Your task to perform on an android device: change timer sound Image 0: 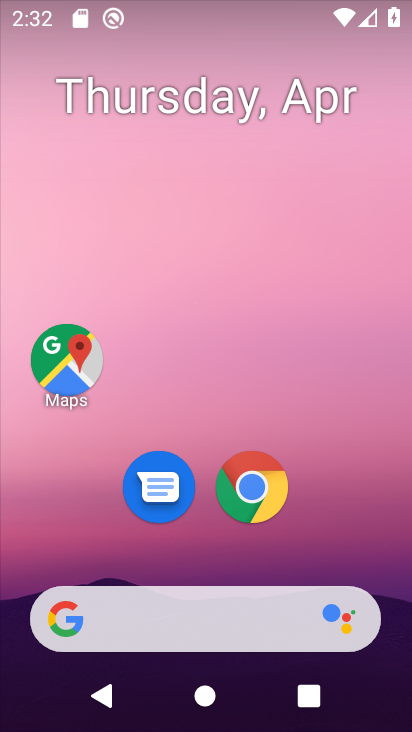
Step 0: drag from (275, 568) to (253, 317)
Your task to perform on an android device: change timer sound Image 1: 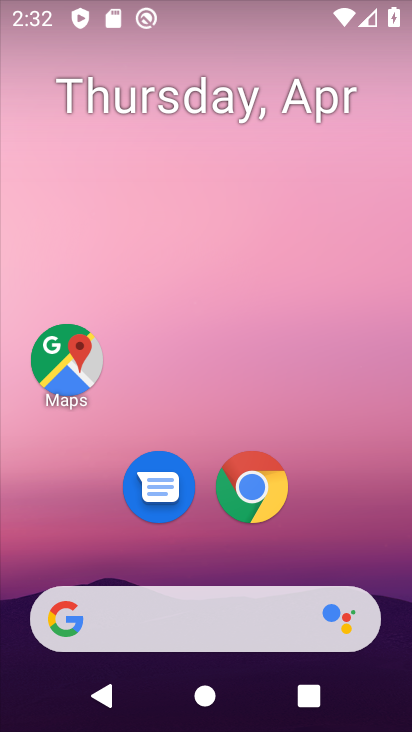
Step 1: drag from (246, 548) to (263, 259)
Your task to perform on an android device: change timer sound Image 2: 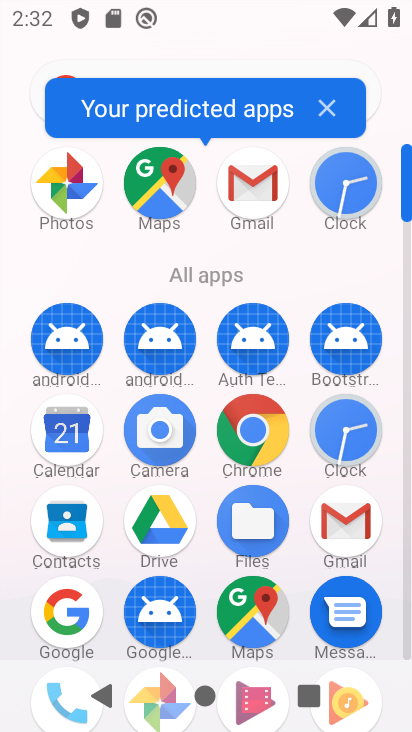
Step 2: drag from (285, 543) to (331, 155)
Your task to perform on an android device: change timer sound Image 3: 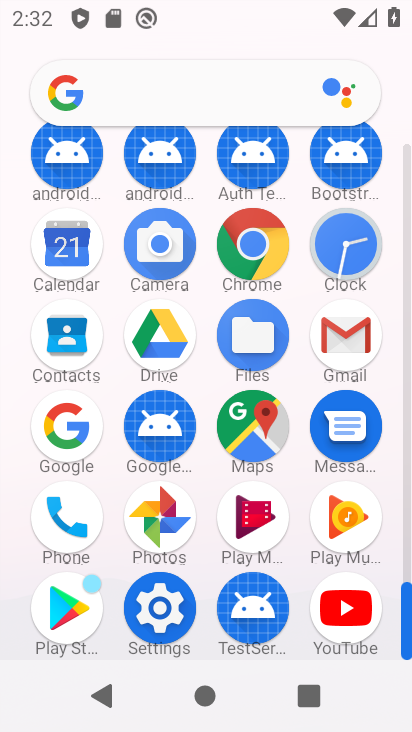
Step 3: click (175, 612)
Your task to perform on an android device: change timer sound Image 4: 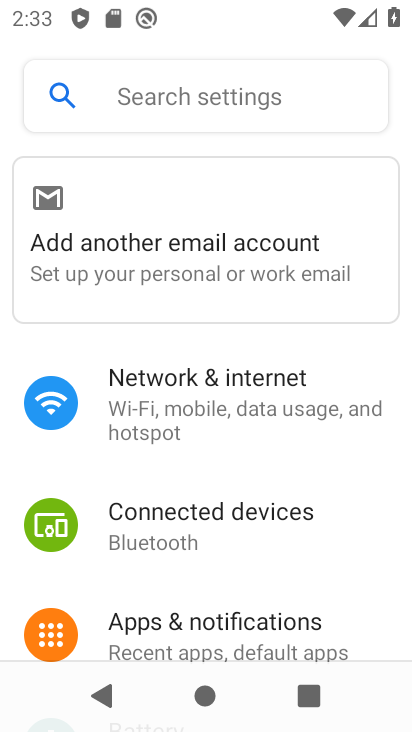
Step 4: drag from (177, 617) to (194, 502)
Your task to perform on an android device: change timer sound Image 5: 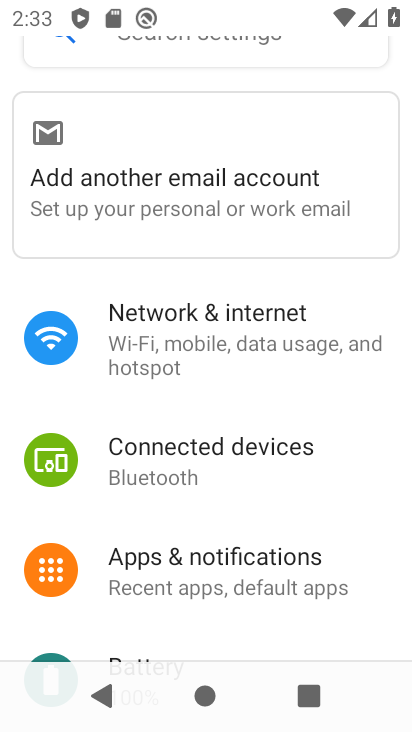
Step 5: drag from (204, 543) to (203, 379)
Your task to perform on an android device: change timer sound Image 6: 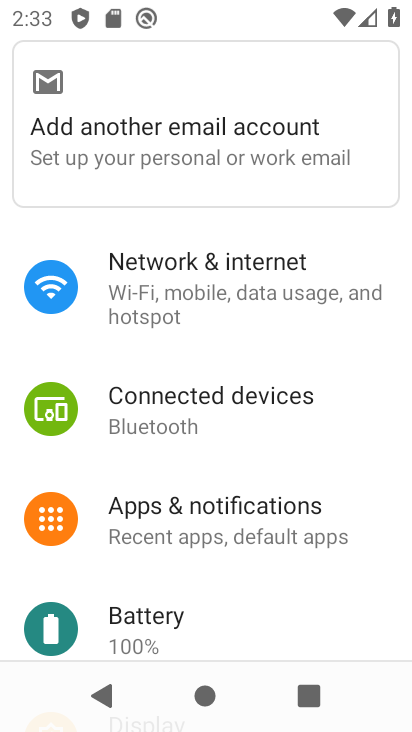
Step 6: drag from (195, 617) to (186, 345)
Your task to perform on an android device: change timer sound Image 7: 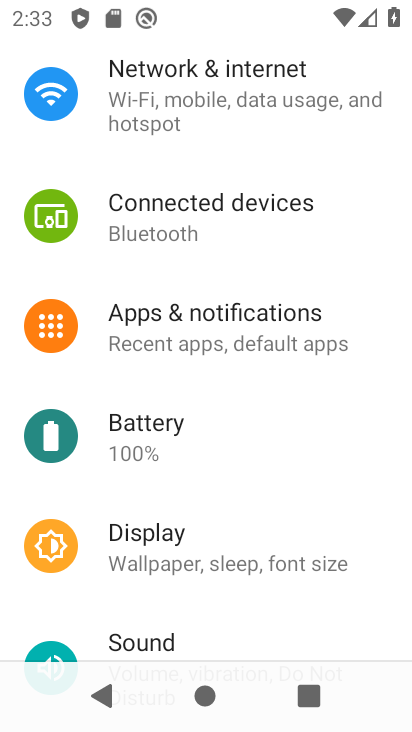
Step 7: drag from (200, 524) to (190, 385)
Your task to perform on an android device: change timer sound Image 8: 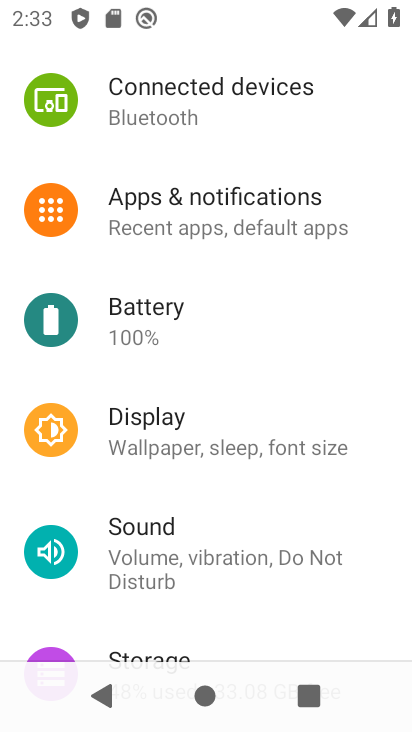
Step 8: click (195, 520)
Your task to perform on an android device: change timer sound Image 9: 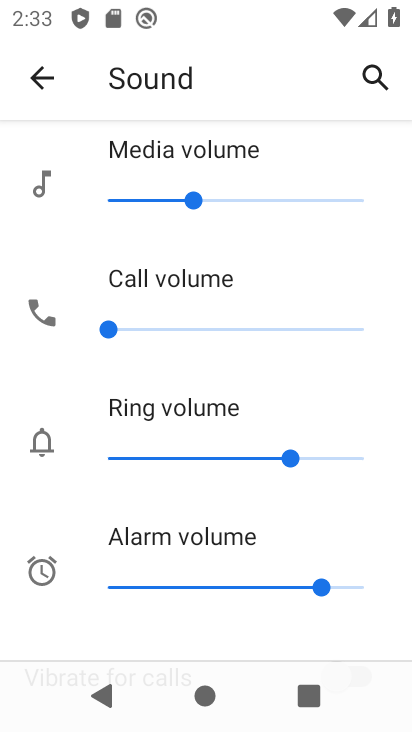
Step 9: task complete